Your task to perform on an android device: Search for seafood restaurants on Google Maps Image 0: 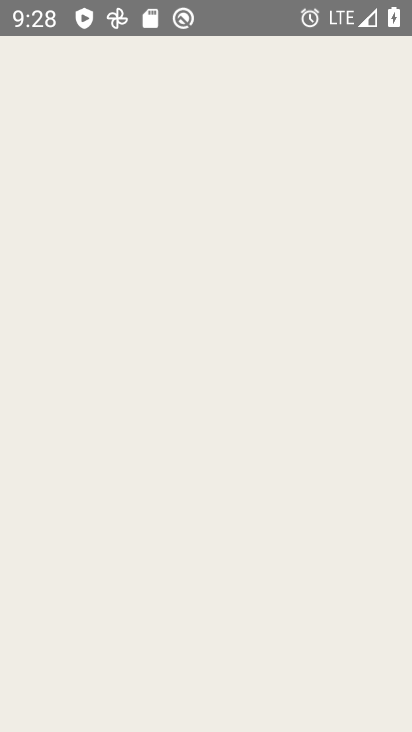
Step 0: click (216, 81)
Your task to perform on an android device: Search for seafood restaurants on Google Maps Image 1: 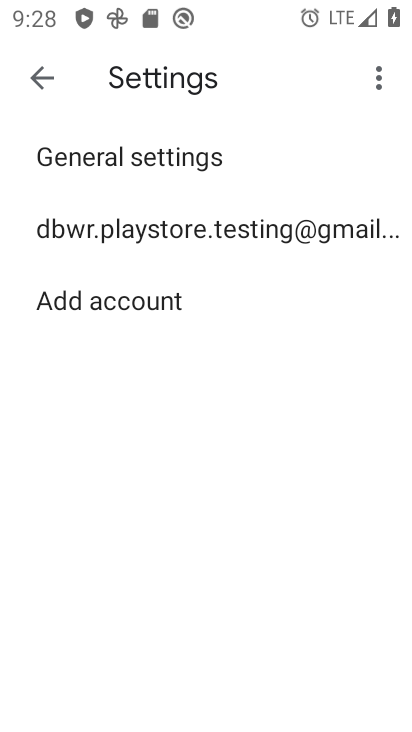
Step 1: press home button
Your task to perform on an android device: Search for seafood restaurants on Google Maps Image 2: 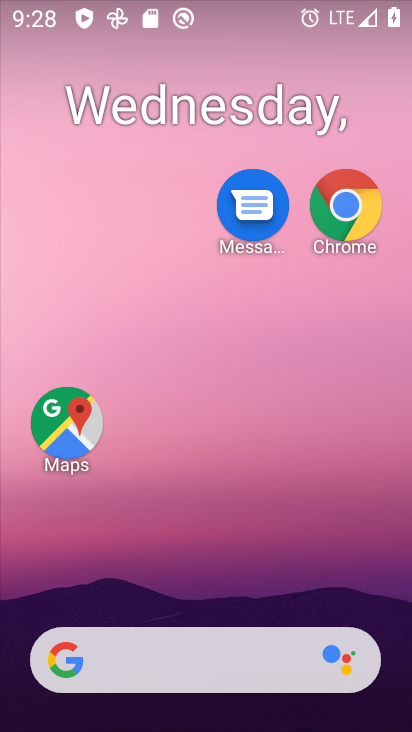
Step 2: drag from (159, 581) to (238, 102)
Your task to perform on an android device: Search for seafood restaurants on Google Maps Image 3: 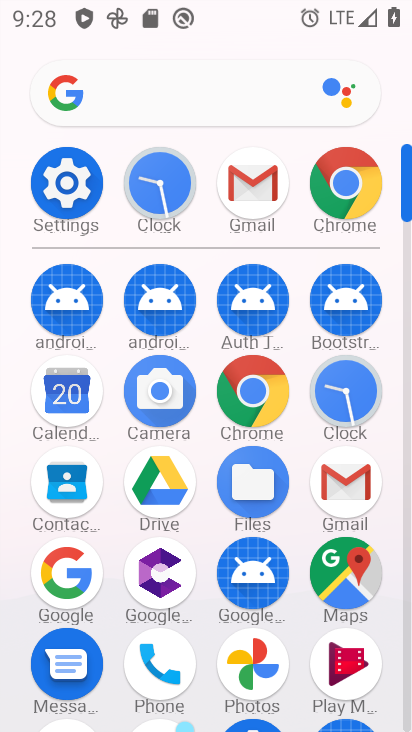
Step 3: click (353, 568)
Your task to perform on an android device: Search for seafood restaurants on Google Maps Image 4: 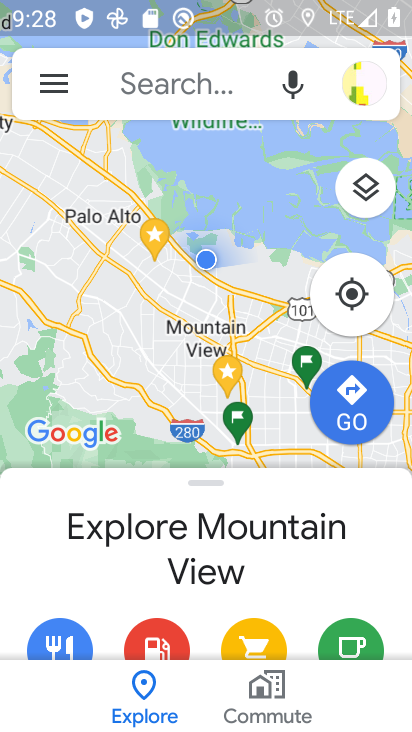
Step 4: click (159, 80)
Your task to perform on an android device: Search for seafood restaurants on Google Maps Image 5: 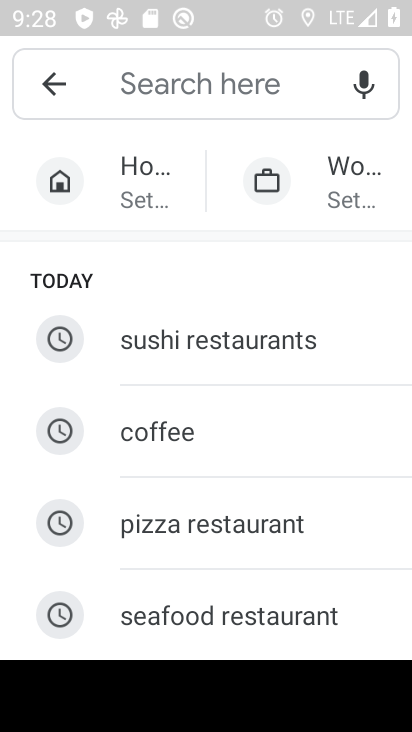
Step 5: click (234, 617)
Your task to perform on an android device: Search for seafood restaurants on Google Maps Image 6: 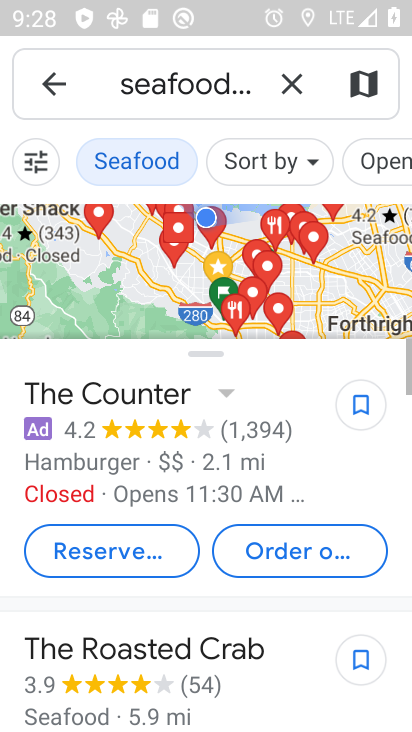
Step 6: task complete